Your task to perform on an android device: Open my contact list Image 0: 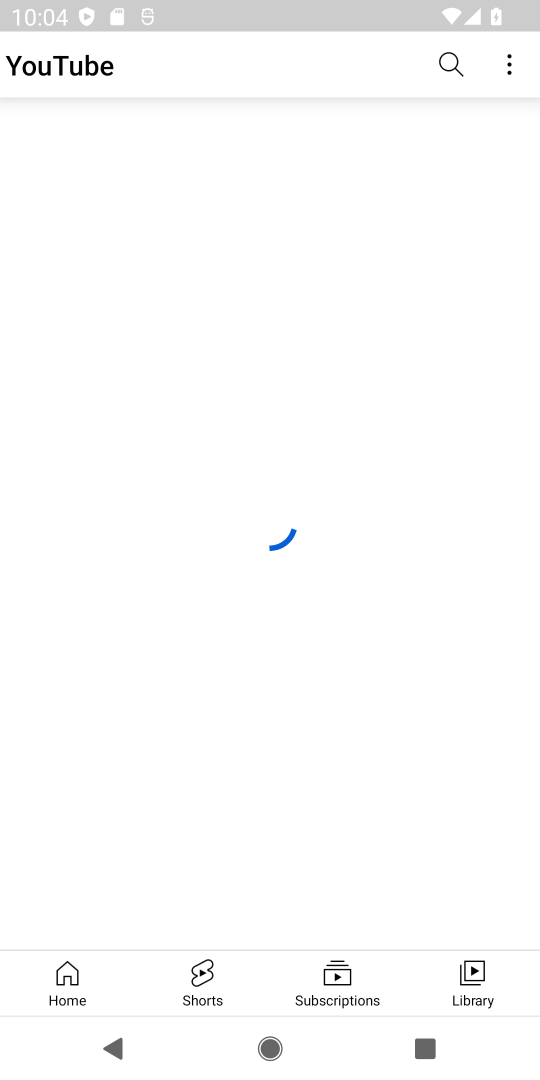
Step 0: press home button
Your task to perform on an android device: Open my contact list Image 1: 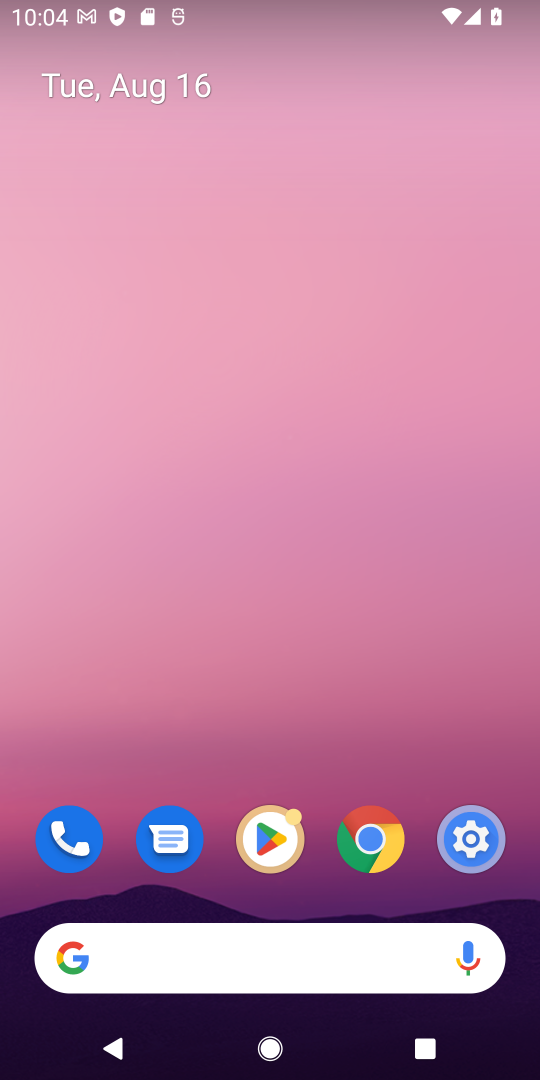
Step 1: drag from (212, 869) to (354, 0)
Your task to perform on an android device: Open my contact list Image 2: 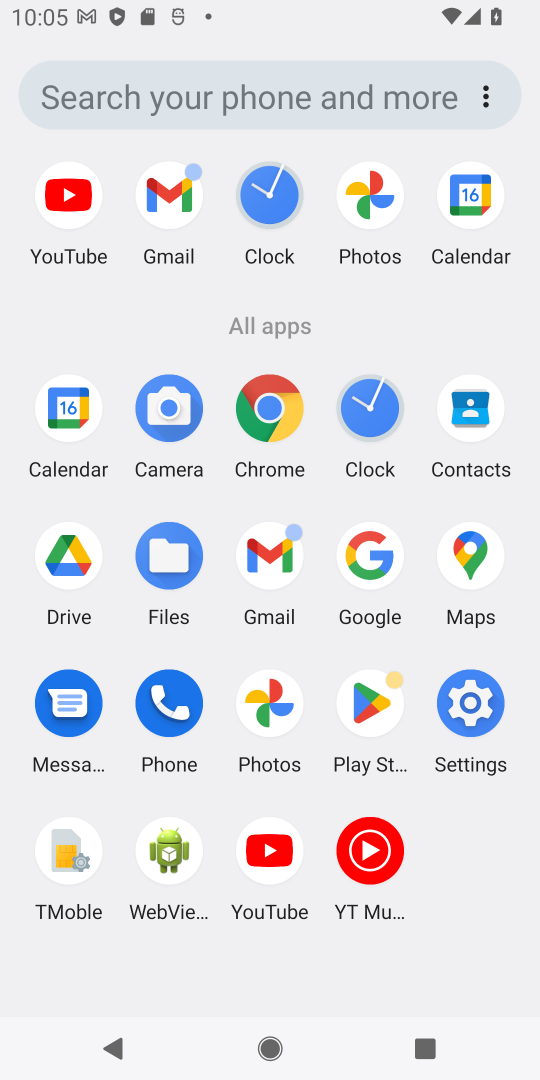
Step 2: click (491, 424)
Your task to perform on an android device: Open my contact list Image 3: 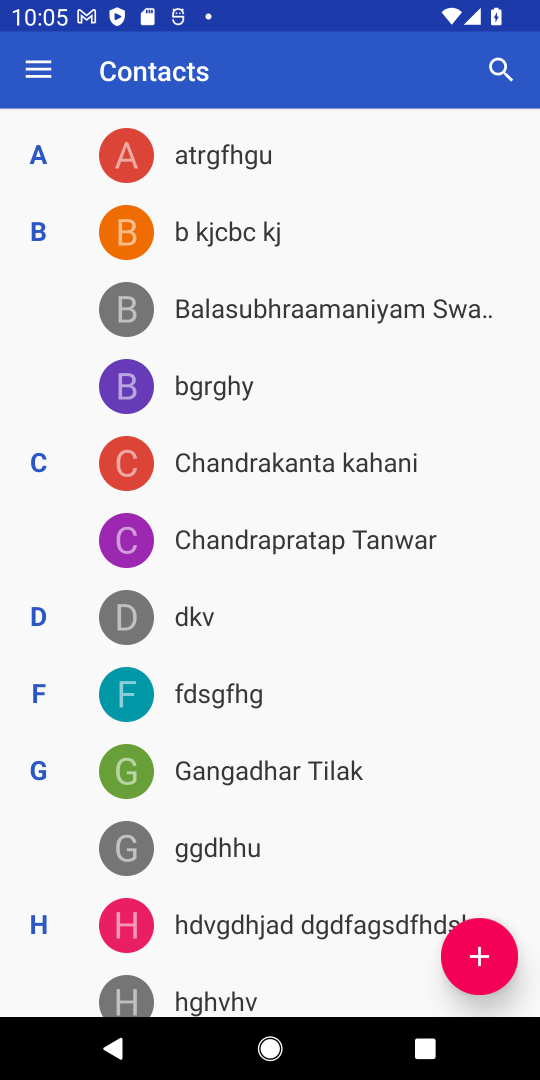
Step 3: click (481, 955)
Your task to perform on an android device: Open my contact list Image 4: 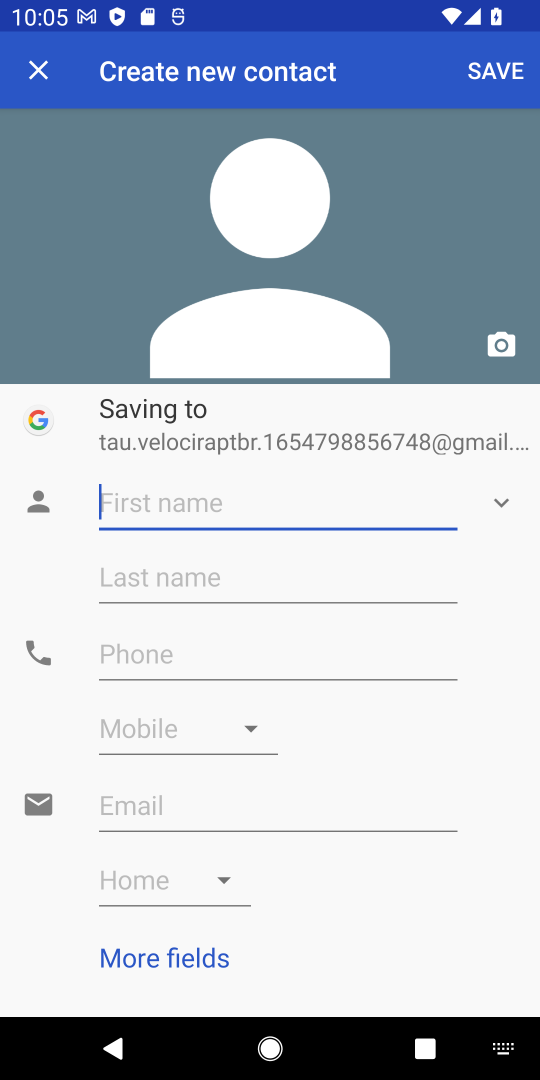
Step 4: type "flames"
Your task to perform on an android device: Open my contact list Image 5: 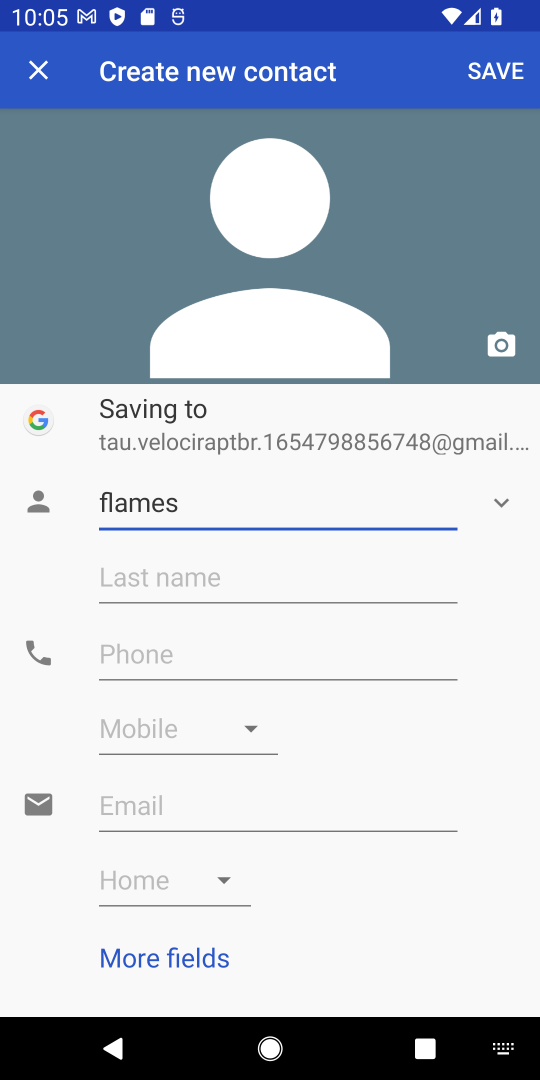
Step 5: click (494, 68)
Your task to perform on an android device: Open my contact list Image 6: 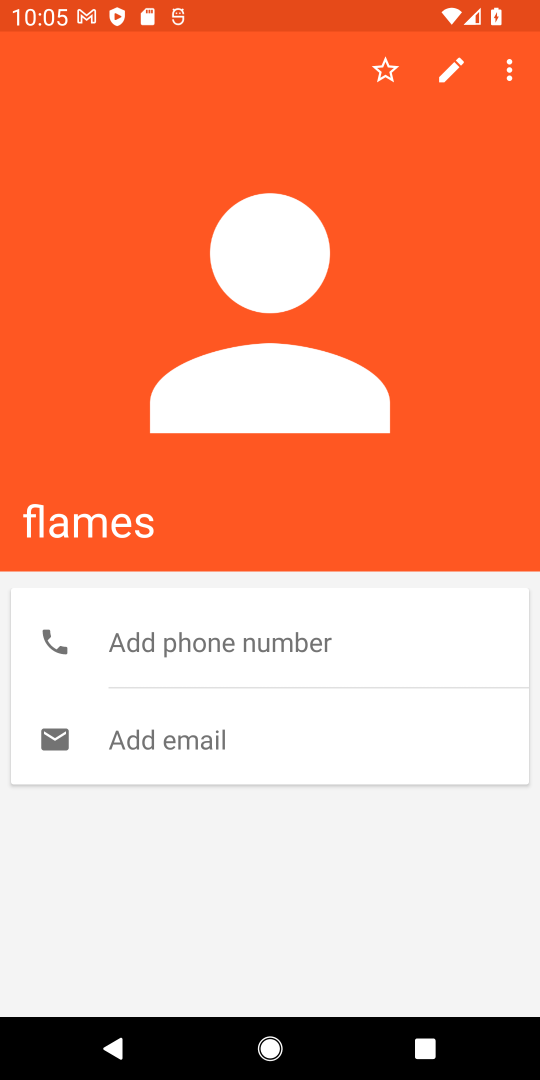
Step 6: task complete